Your task to perform on an android device: Open Google Chrome and click the shortcut for Amazon.com Image 0: 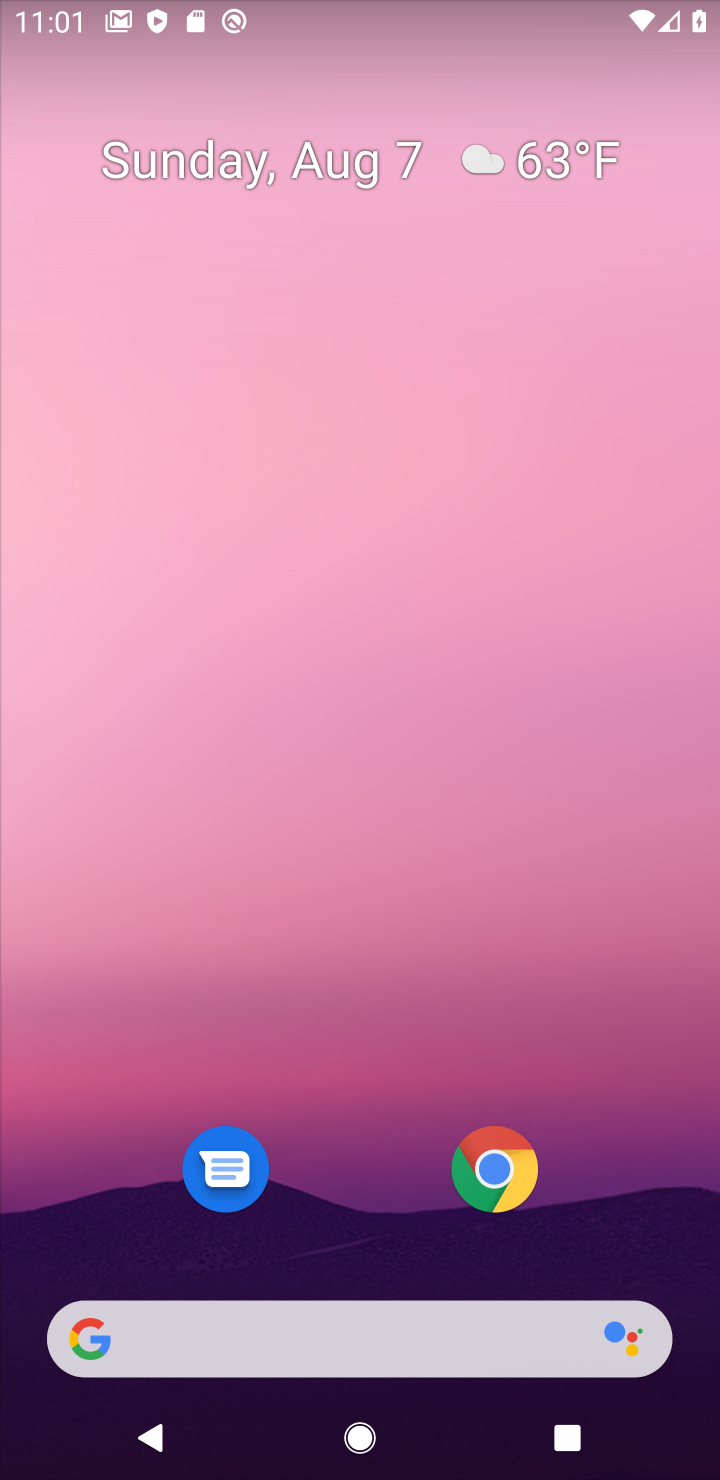
Step 0: press home button
Your task to perform on an android device: Open Google Chrome and click the shortcut for Amazon.com Image 1: 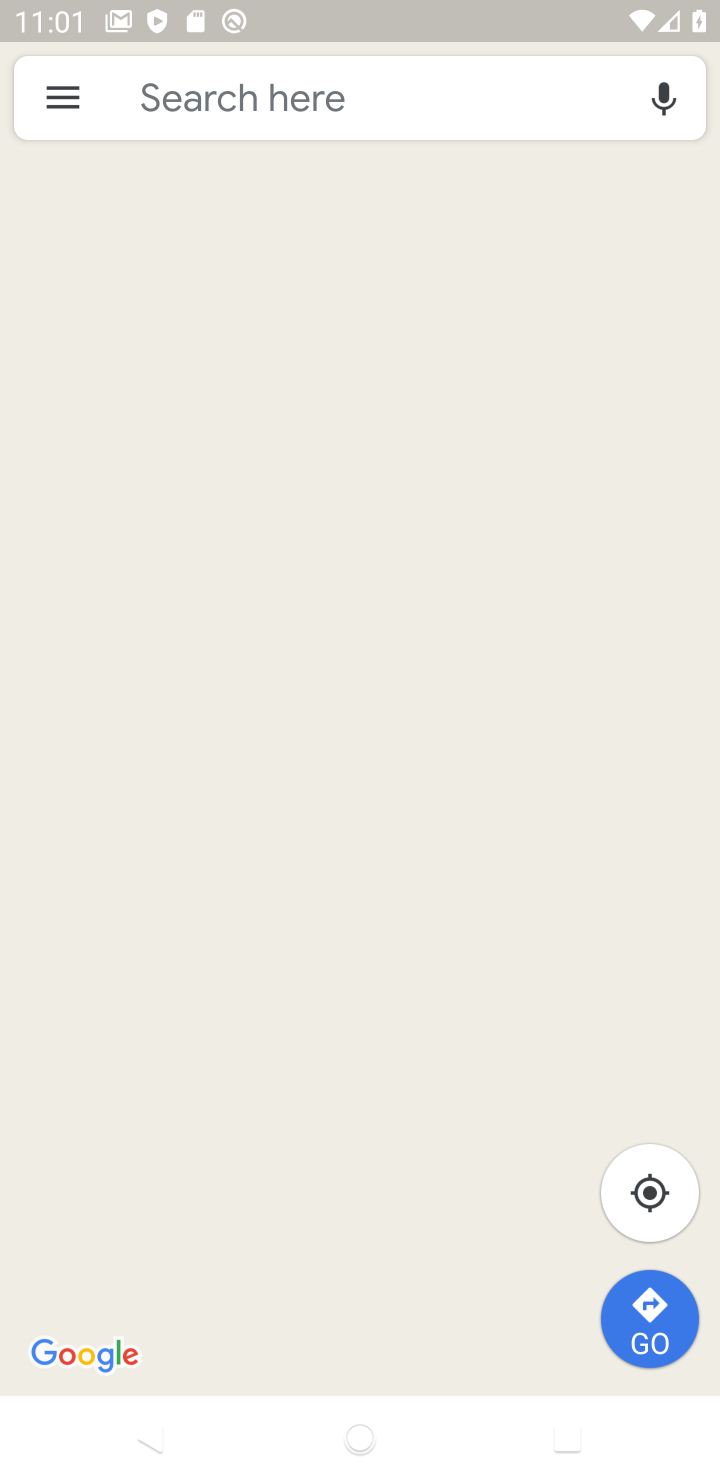
Step 1: drag from (454, 1270) to (395, 197)
Your task to perform on an android device: Open Google Chrome and click the shortcut for Amazon.com Image 2: 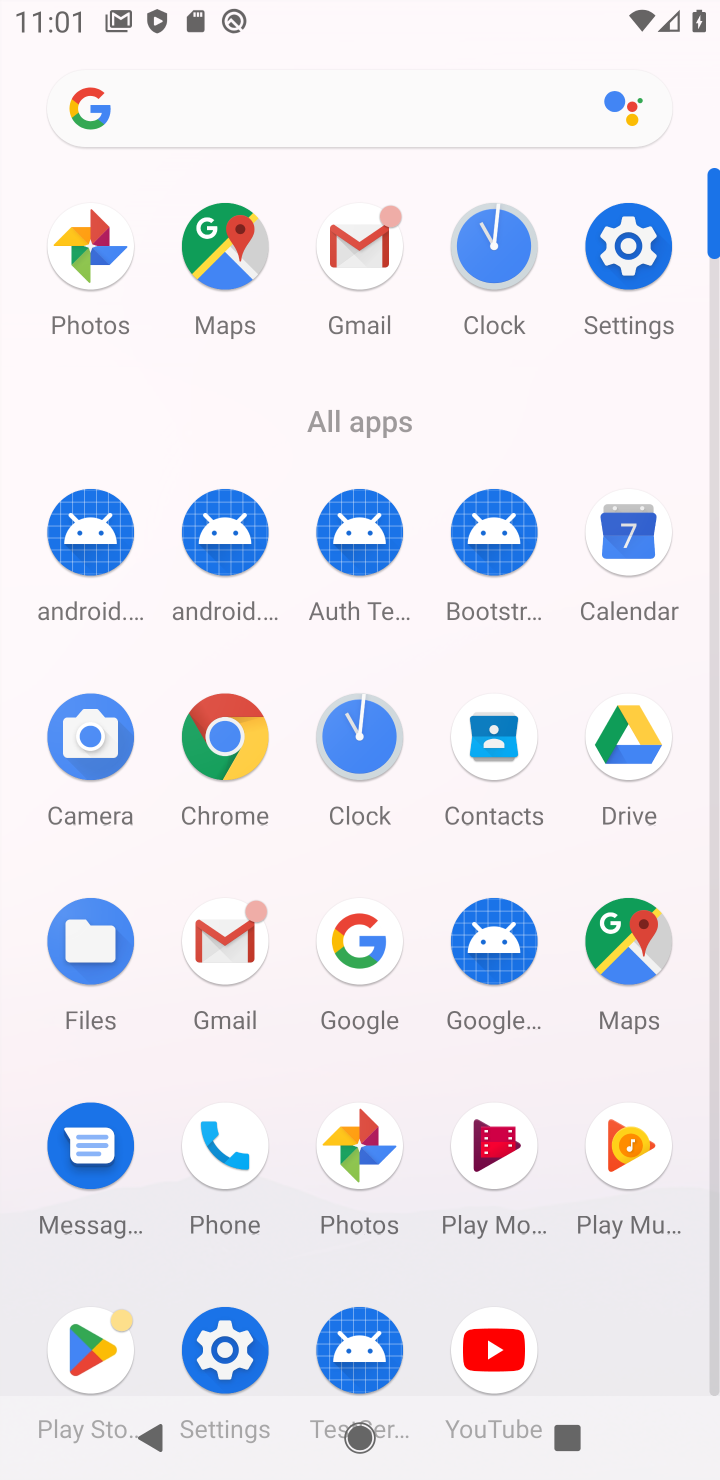
Step 2: click (234, 750)
Your task to perform on an android device: Open Google Chrome and click the shortcut for Amazon.com Image 3: 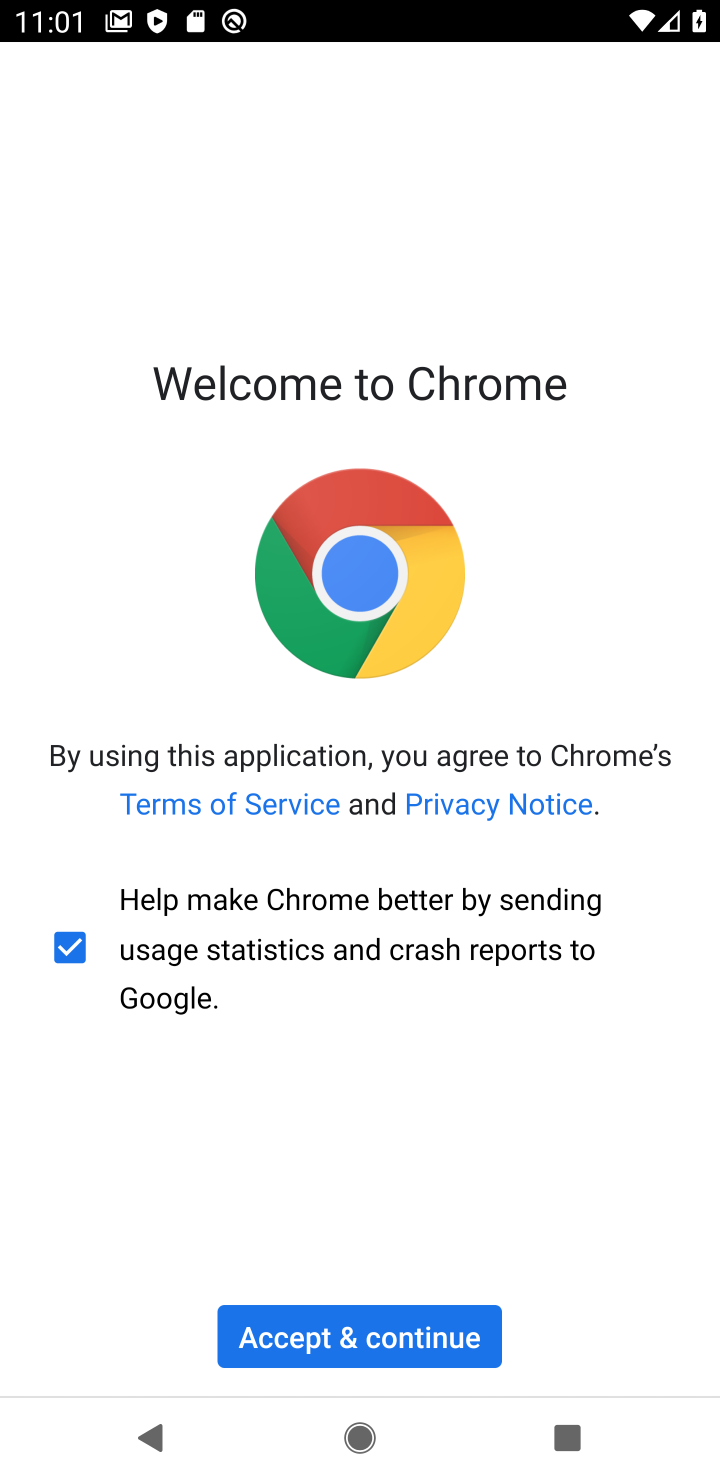
Step 3: click (383, 1315)
Your task to perform on an android device: Open Google Chrome and click the shortcut for Amazon.com Image 4: 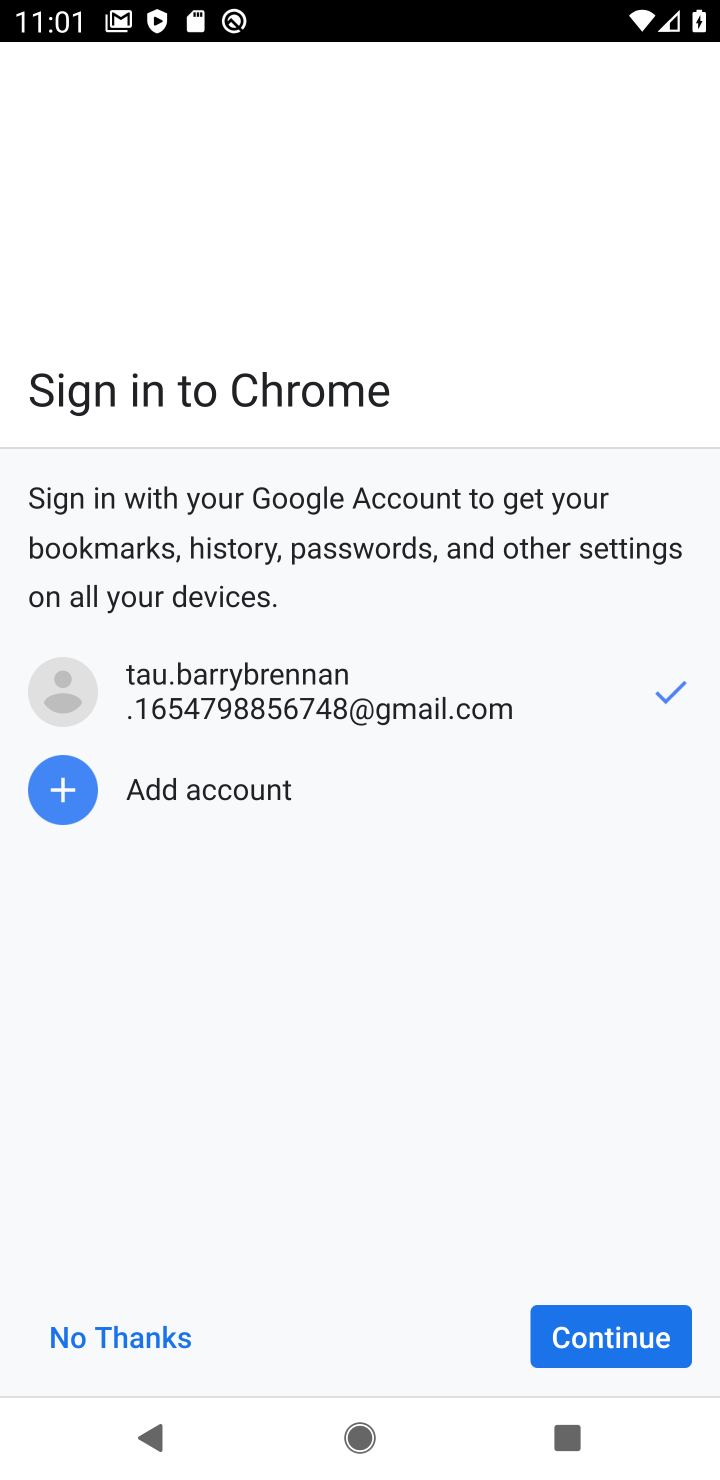
Step 4: click (553, 1329)
Your task to perform on an android device: Open Google Chrome and click the shortcut for Amazon.com Image 5: 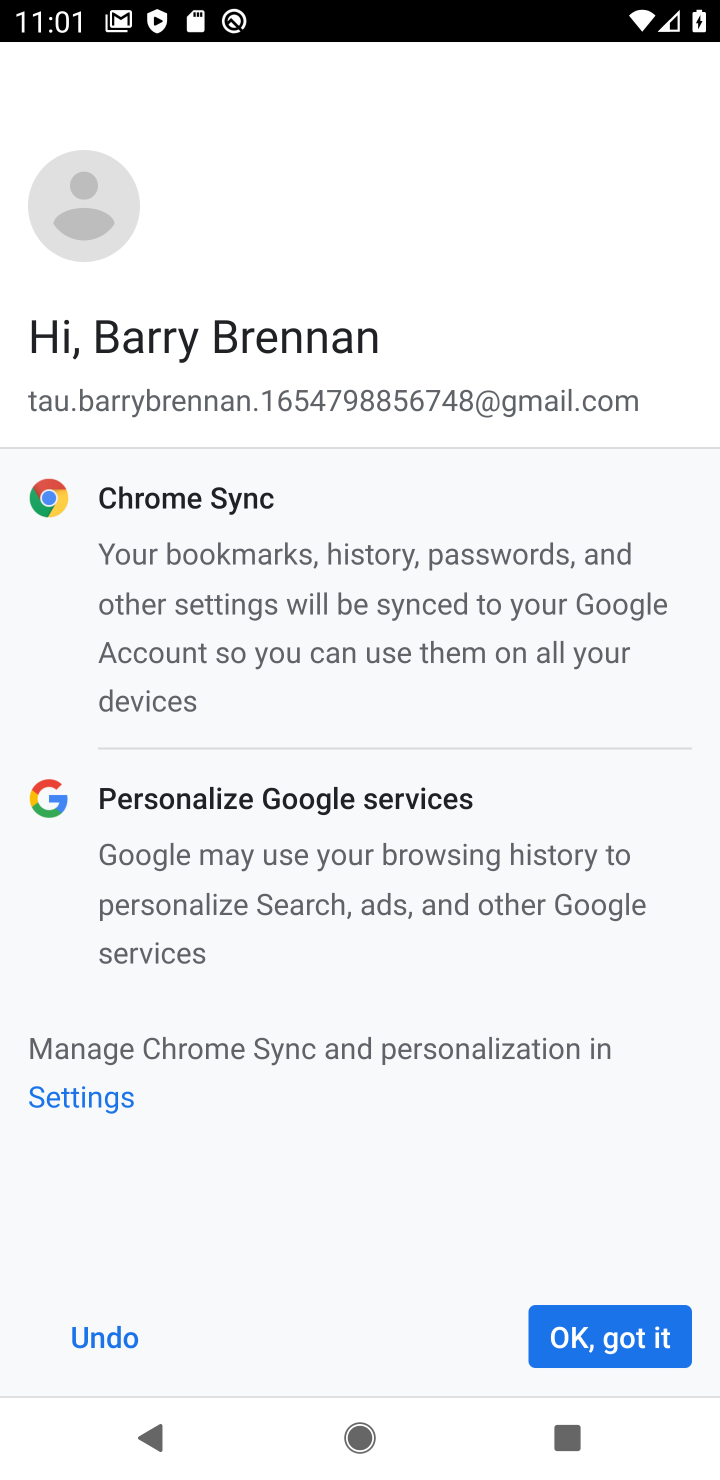
Step 5: click (553, 1329)
Your task to perform on an android device: Open Google Chrome and click the shortcut for Amazon.com Image 6: 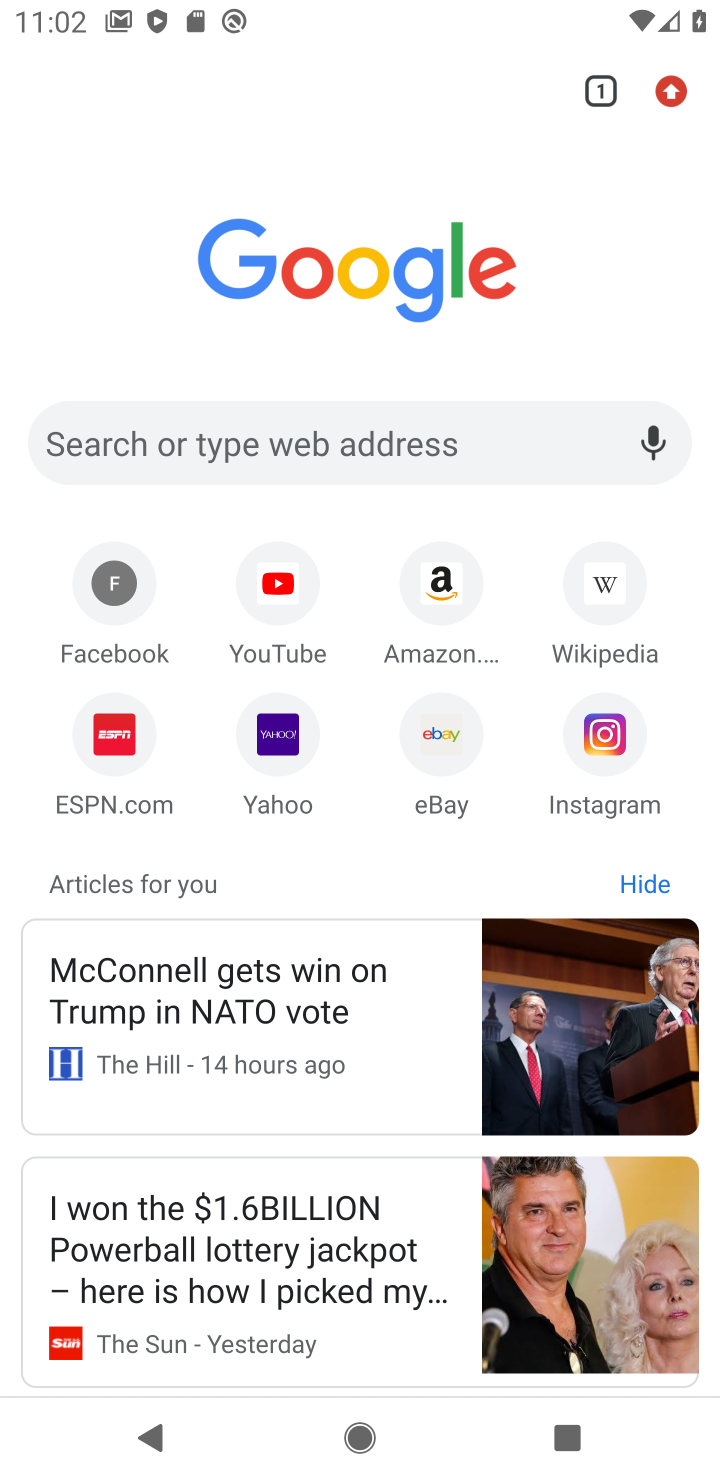
Step 6: click (441, 615)
Your task to perform on an android device: Open Google Chrome and click the shortcut for Amazon.com Image 7: 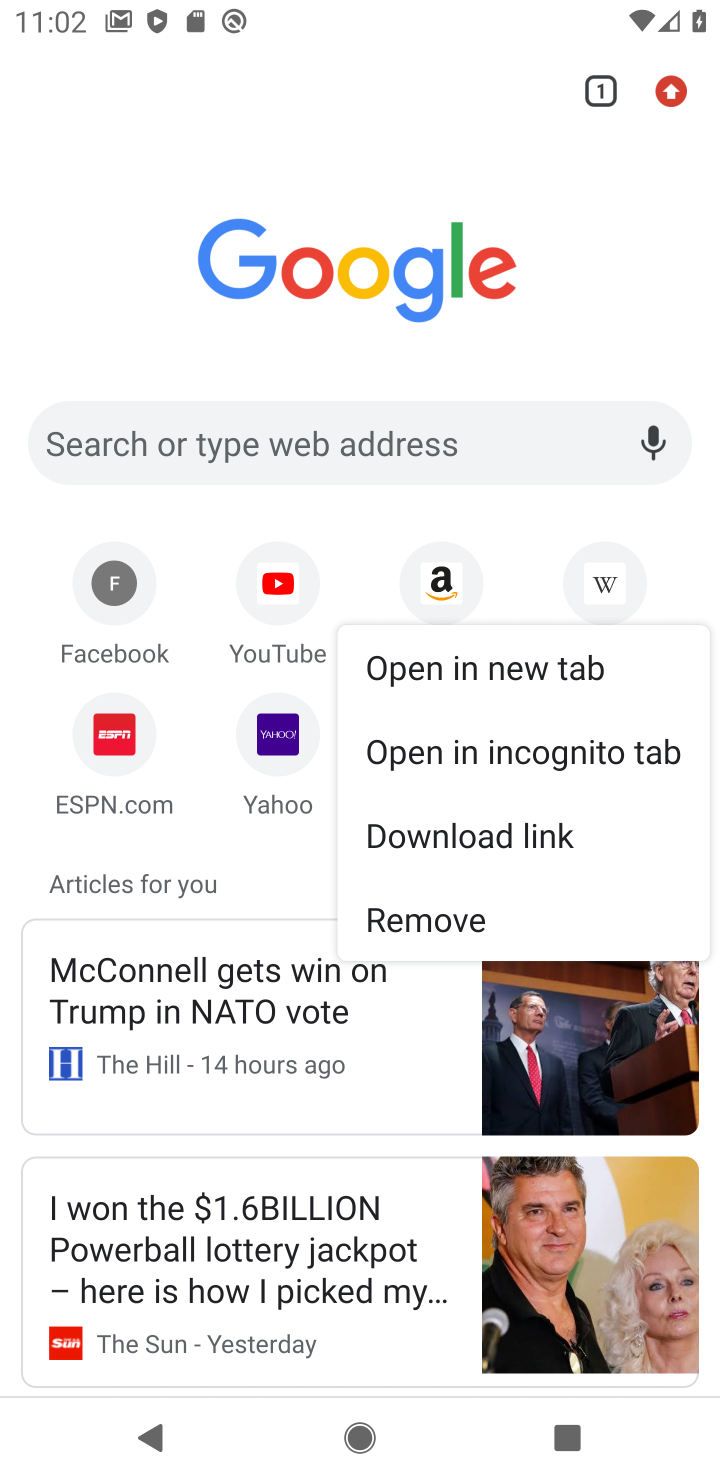
Step 7: click (461, 572)
Your task to perform on an android device: Open Google Chrome and click the shortcut for Amazon.com Image 8: 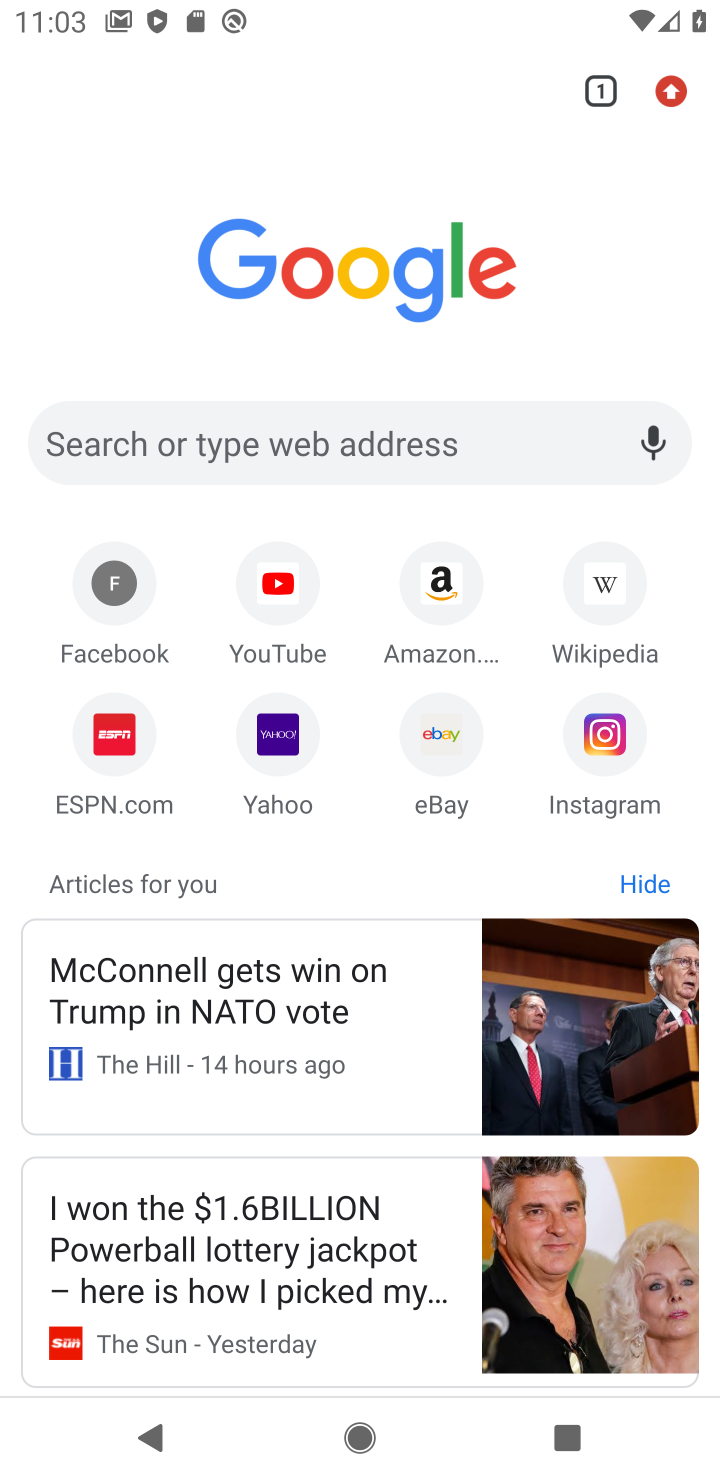
Step 8: click (433, 575)
Your task to perform on an android device: Open Google Chrome and click the shortcut for Amazon.com Image 9: 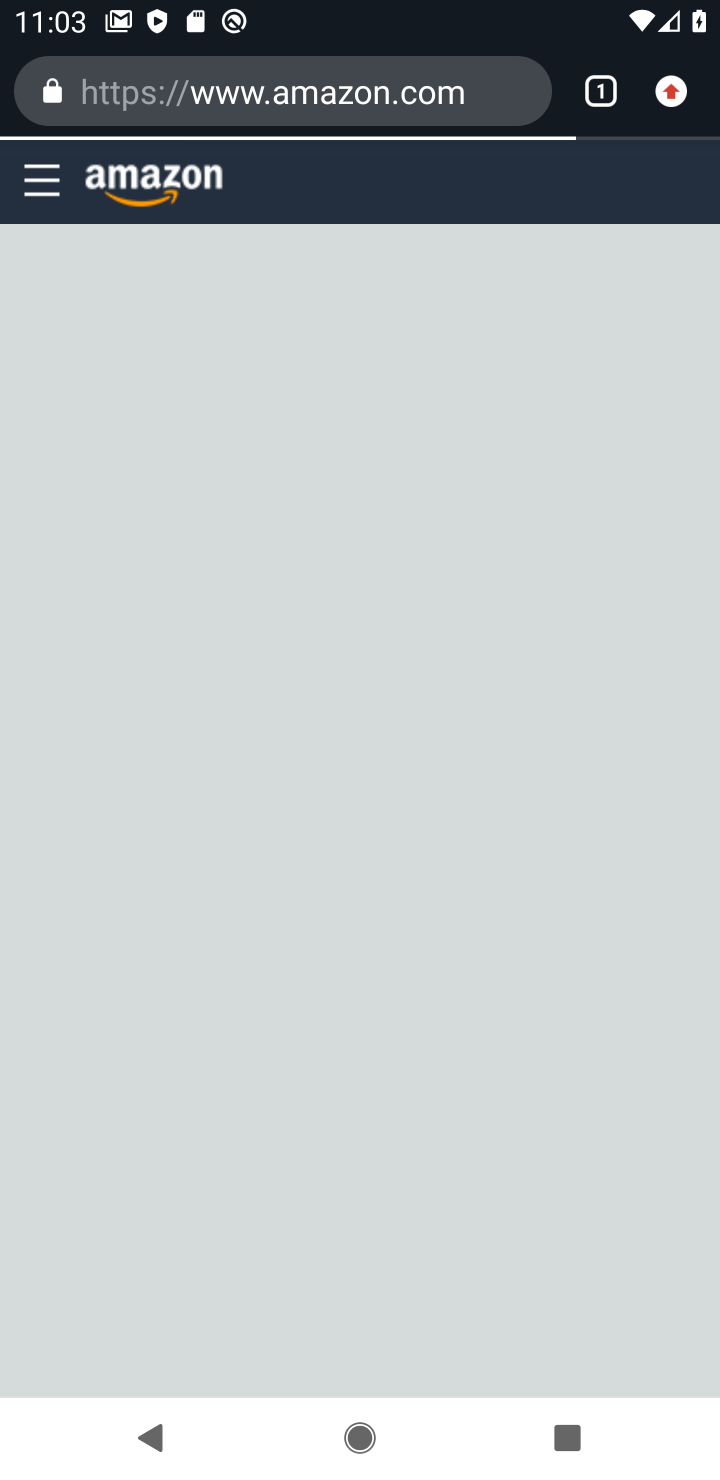
Step 9: task complete